Your task to perform on an android device: turn off notifications in google photos Image 0: 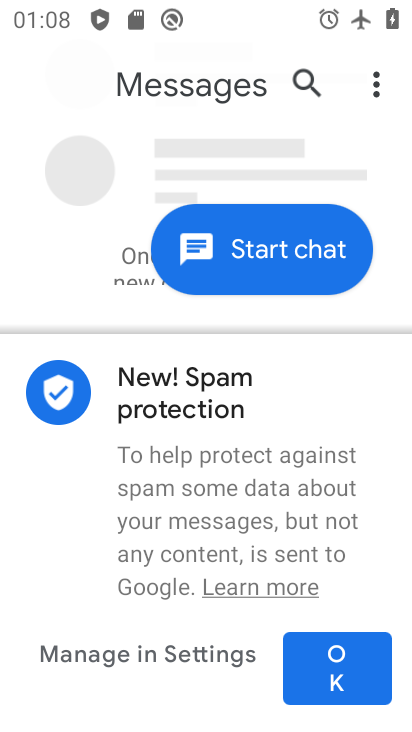
Step 0: drag from (322, 524) to (326, 112)
Your task to perform on an android device: turn off notifications in google photos Image 1: 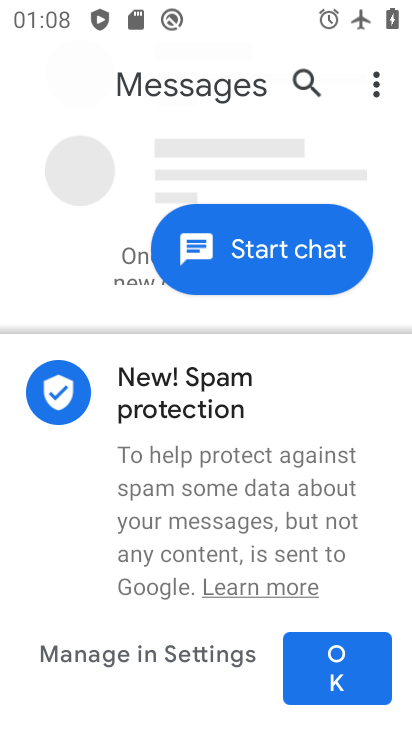
Step 1: press home button
Your task to perform on an android device: turn off notifications in google photos Image 2: 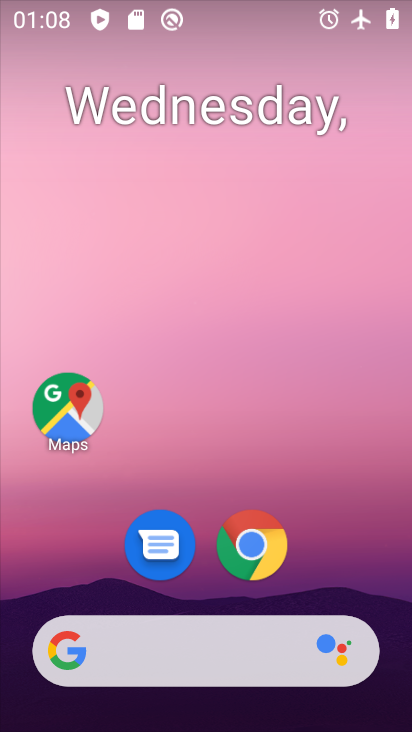
Step 2: drag from (335, 385) to (346, 152)
Your task to perform on an android device: turn off notifications in google photos Image 3: 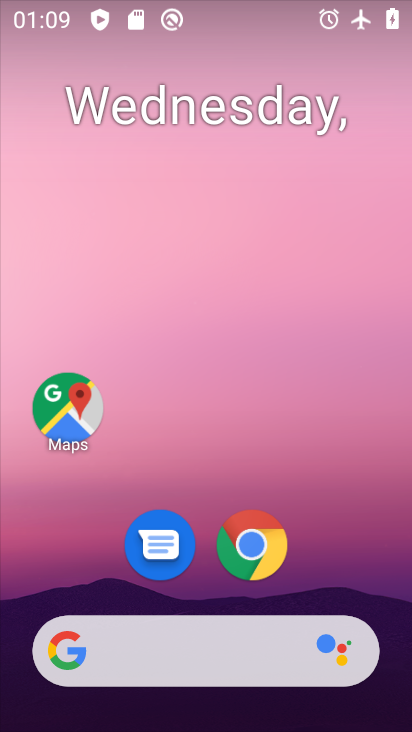
Step 3: drag from (319, 531) to (344, 131)
Your task to perform on an android device: turn off notifications in google photos Image 4: 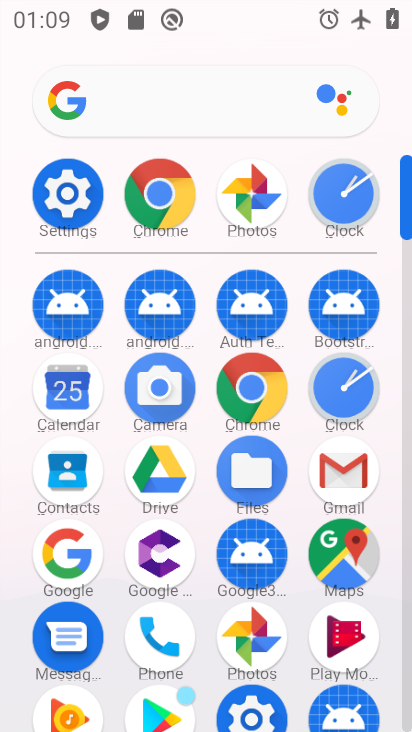
Step 4: click (253, 646)
Your task to perform on an android device: turn off notifications in google photos Image 5: 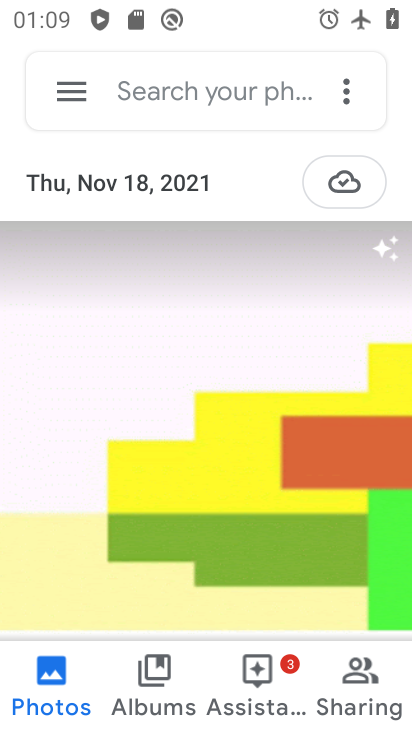
Step 5: click (51, 93)
Your task to perform on an android device: turn off notifications in google photos Image 6: 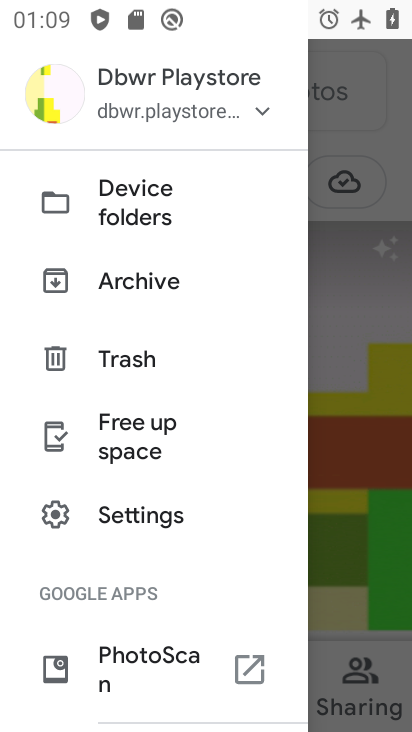
Step 6: drag from (142, 607) to (224, 367)
Your task to perform on an android device: turn off notifications in google photos Image 7: 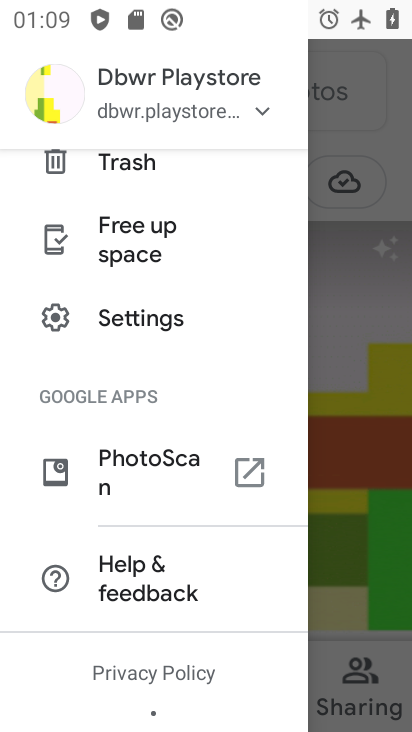
Step 7: click (139, 330)
Your task to perform on an android device: turn off notifications in google photos Image 8: 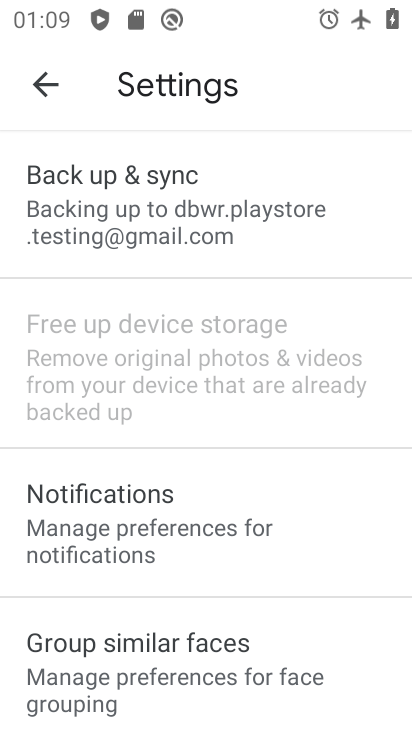
Step 8: click (161, 545)
Your task to perform on an android device: turn off notifications in google photos Image 9: 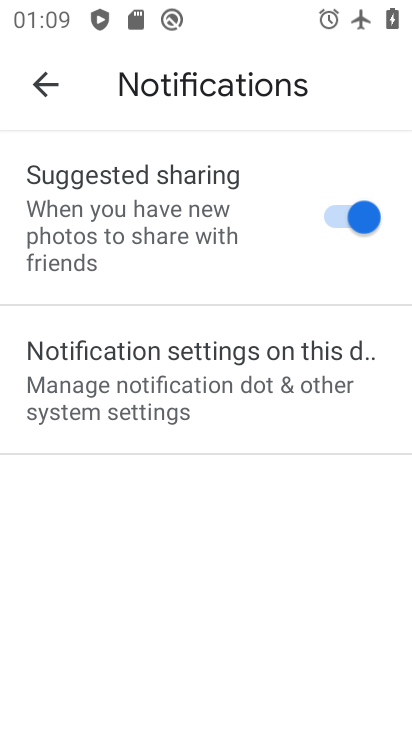
Step 9: click (213, 368)
Your task to perform on an android device: turn off notifications in google photos Image 10: 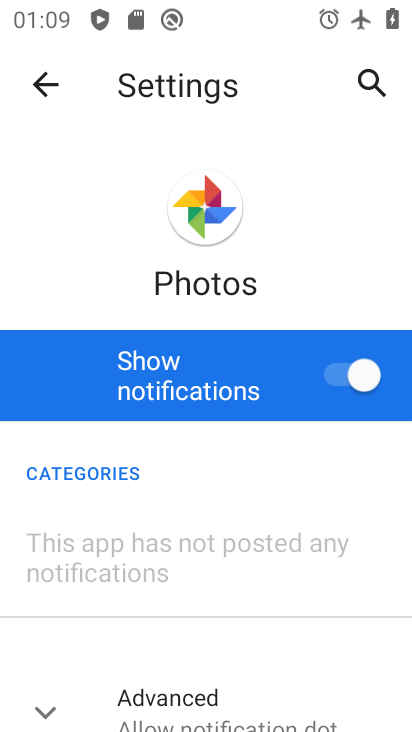
Step 10: click (378, 375)
Your task to perform on an android device: turn off notifications in google photos Image 11: 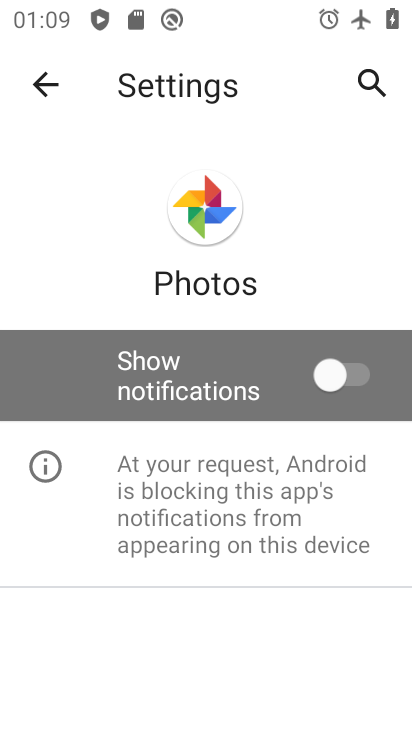
Step 11: task complete